Your task to perform on an android device: change the clock display to analog Image 0: 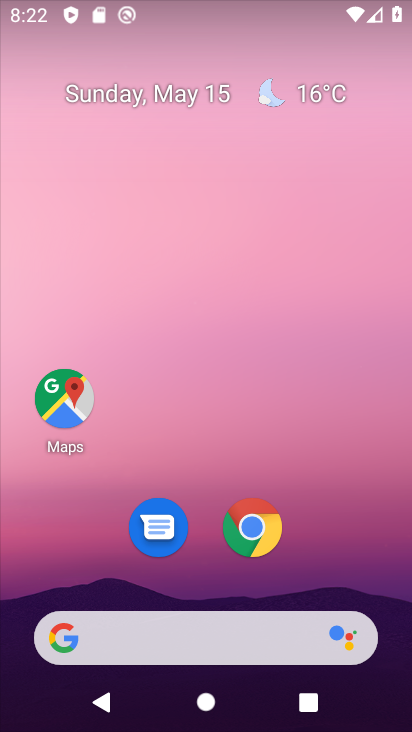
Step 0: drag from (339, 582) to (345, 5)
Your task to perform on an android device: change the clock display to analog Image 1: 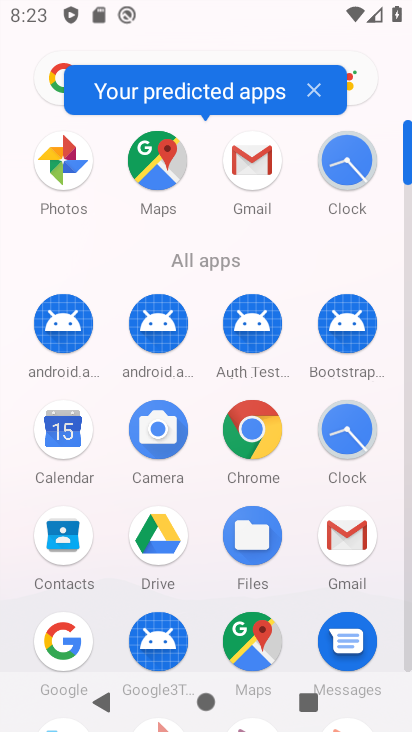
Step 1: click (345, 168)
Your task to perform on an android device: change the clock display to analog Image 2: 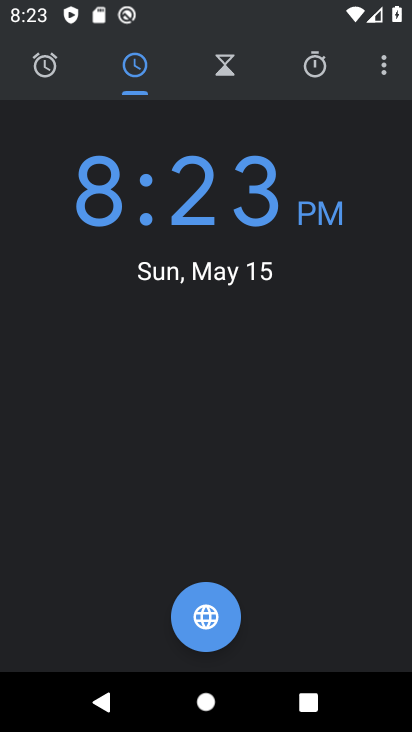
Step 2: click (387, 71)
Your task to perform on an android device: change the clock display to analog Image 3: 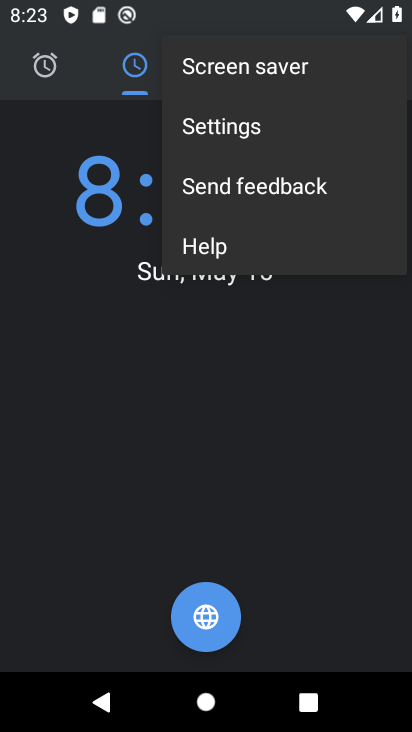
Step 3: click (236, 120)
Your task to perform on an android device: change the clock display to analog Image 4: 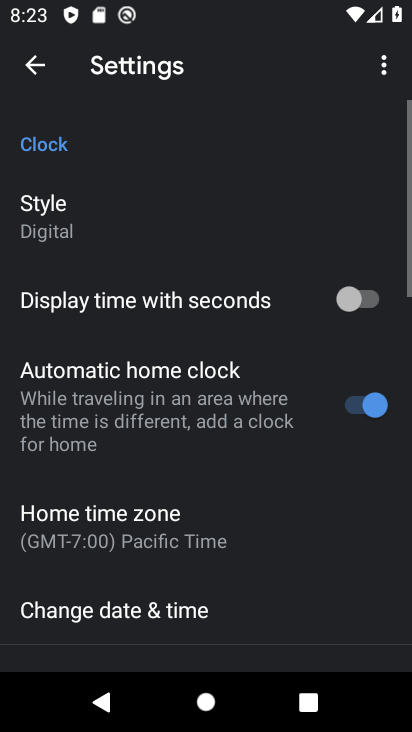
Step 4: click (64, 238)
Your task to perform on an android device: change the clock display to analog Image 5: 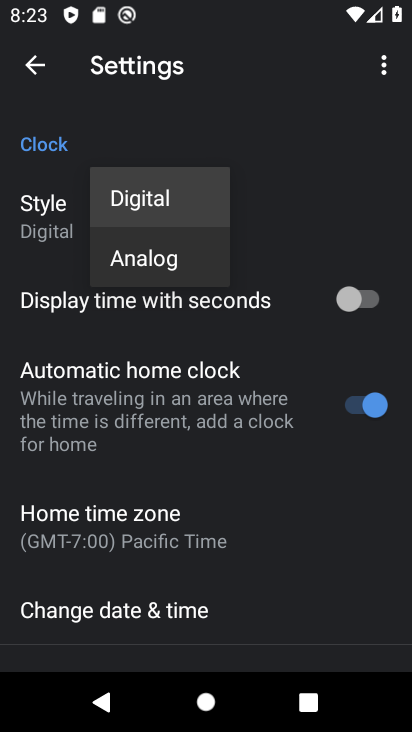
Step 5: click (124, 271)
Your task to perform on an android device: change the clock display to analog Image 6: 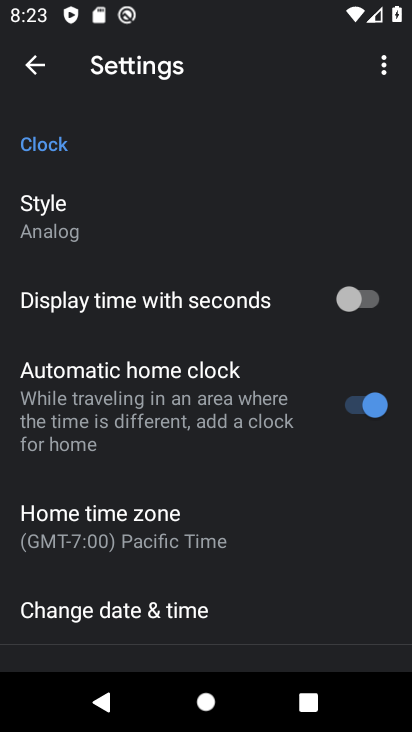
Step 6: task complete